Your task to perform on an android device: Open internet settings Image 0: 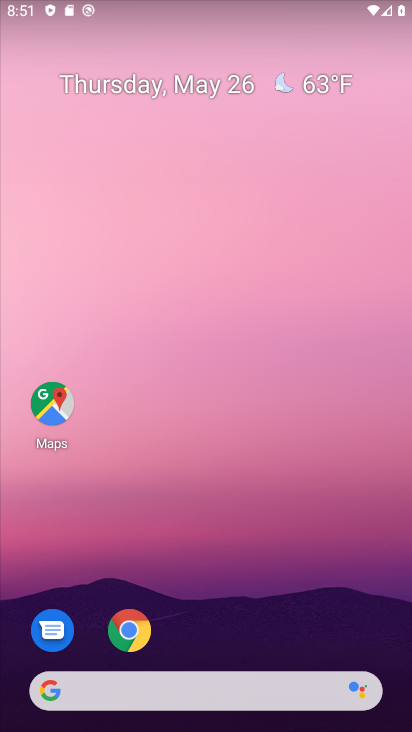
Step 0: drag from (294, 712) to (131, 111)
Your task to perform on an android device: Open internet settings Image 1: 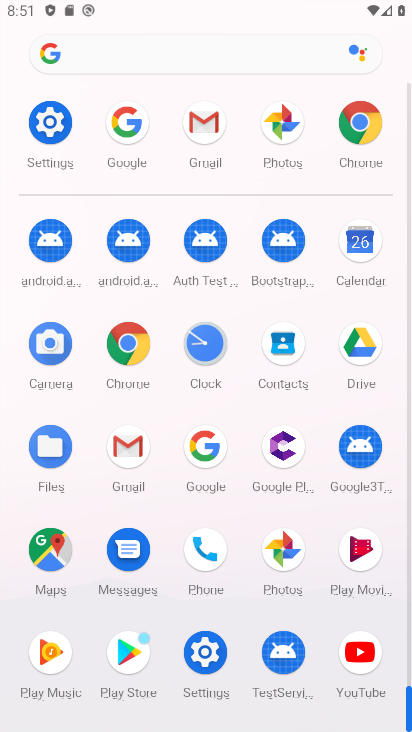
Step 1: click (46, 126)
Your task to perform on an android device: Open internet settings Image 2: 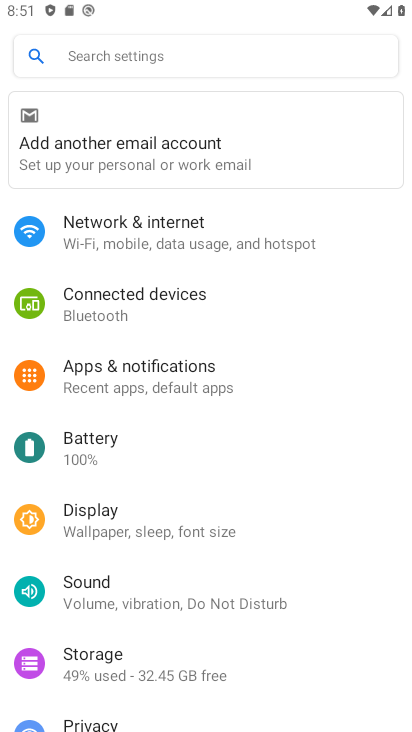
Step 2: click (170, 231)
Your task to perform on an android device: Open internet settings Image 3: 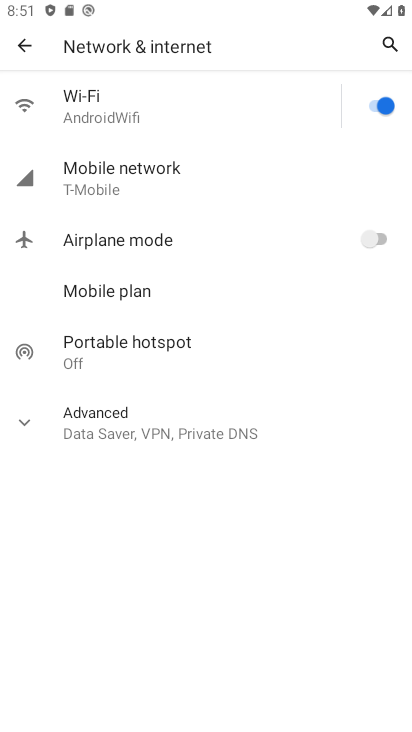
Step 3: task complete